Your task to perform on an android device: What's the weather today? Image 0: 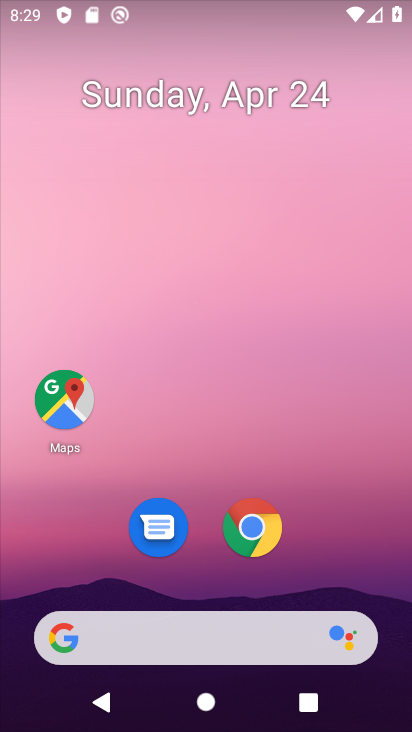
Step 0: drag from (42, 212) to (402, 204)
Your task to perform on an android device: What's the weather today? Image 1: 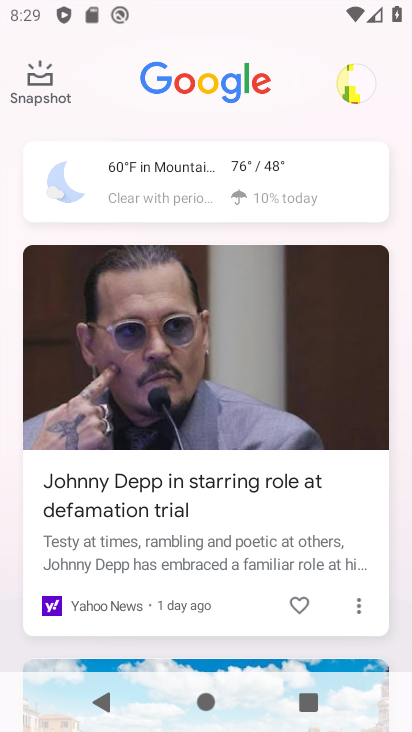
Step 1: click (254, 171)
Your task to perform on an android device: What's the weather today? Image 2: 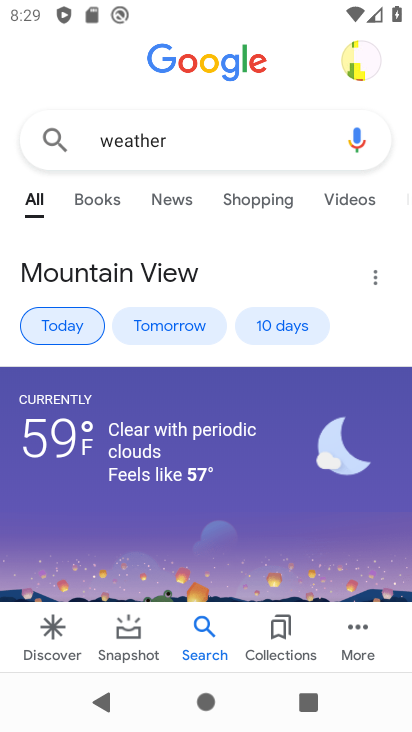
Step 2: task complete